Your task to perform on an android device: Search for Mexican restaurants on Maps Image 0: 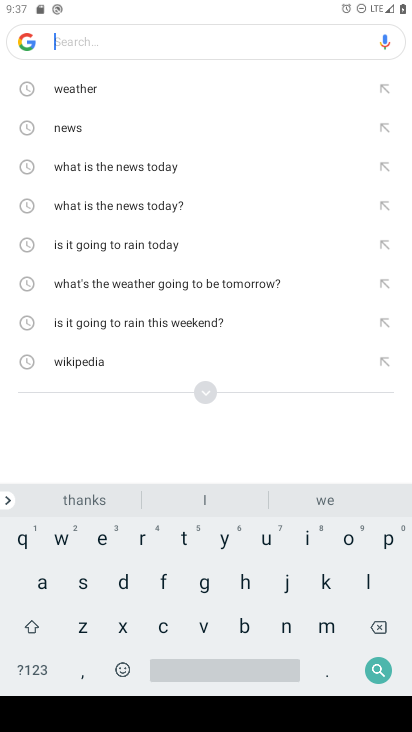
Step 0: press home button
Your task to perform on an android device: Search for Mexican restaurants on Maps Image 1: 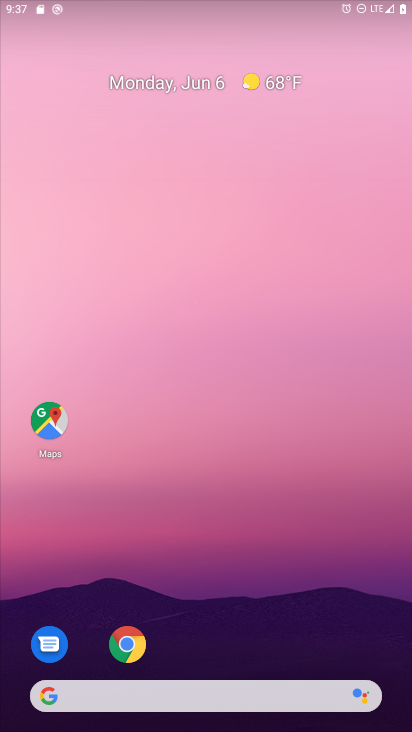
Step 1: drag from (205, 698) to (184, 193)
Your task to perform on an android device: Search for Mexican restaurants on Maps Image 2: 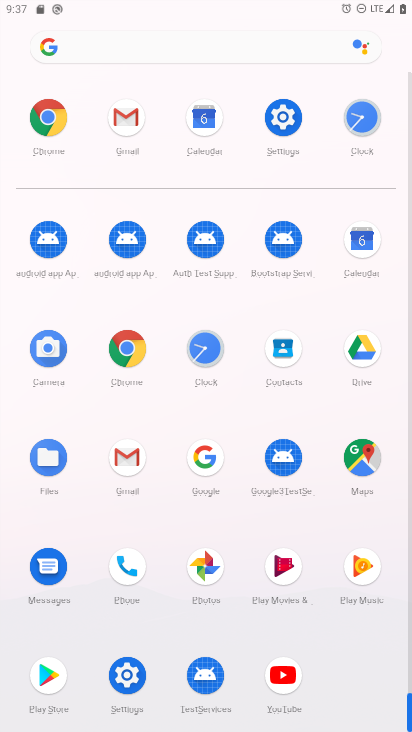
Step 2: click (366, 471)
Your task to perform on an android device: Search for Mexican restaurants on Maps Image 3: 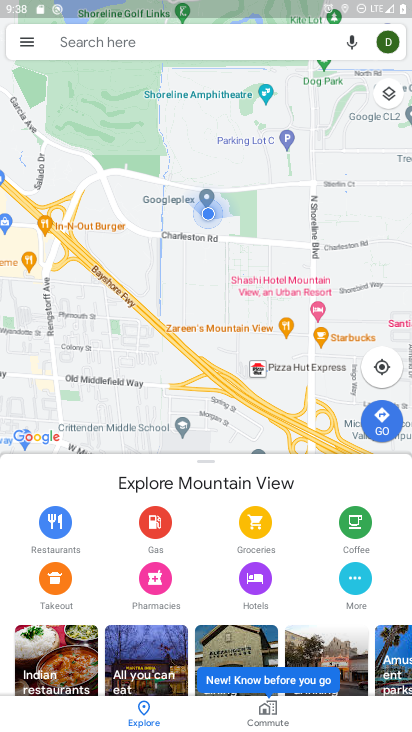
Step 3: click (72, 35)
Your task to perform on an android device: Search for Mexican restaurants on Maps Image 4: 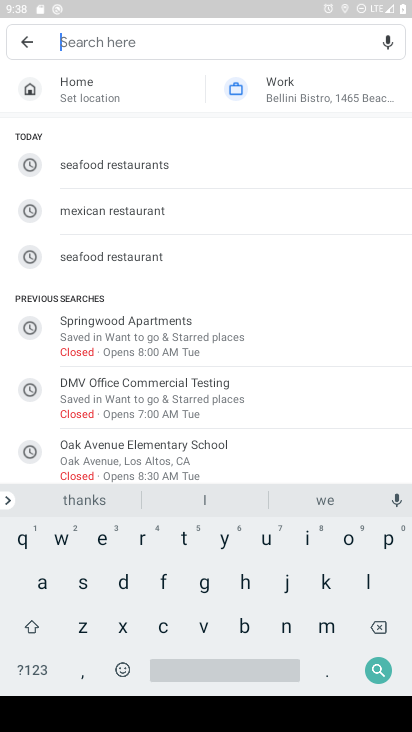
Step 4: click (325, 623)
Your task to perform on an android device: Search for Mexican restaurants on Maps Image 5: 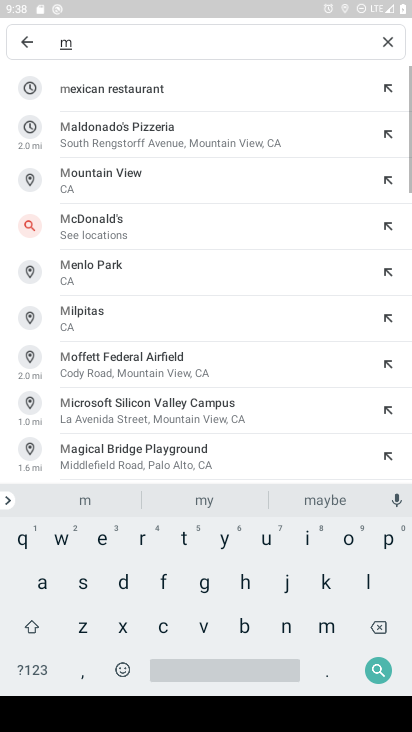
Step 5: click (154, 98)
Your task to perform on an android device: Search for Mexican restaurants on Maps Image 6: 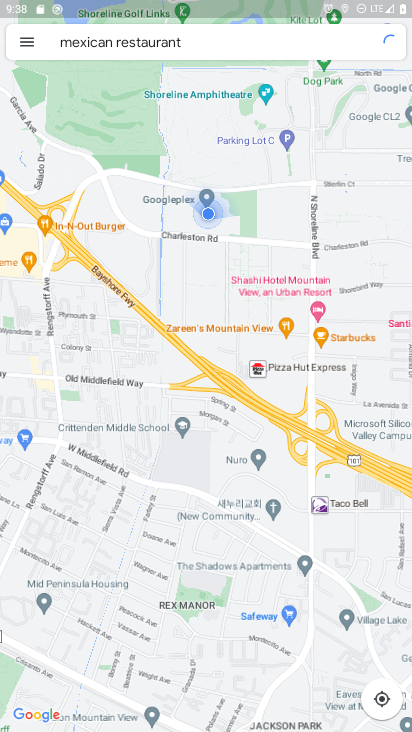
Step 6: task complete